Your task to perform on an android device: Search for "bose soundlink" on costco, select the first entry, add it to the cart, then select checkout. Image 0: 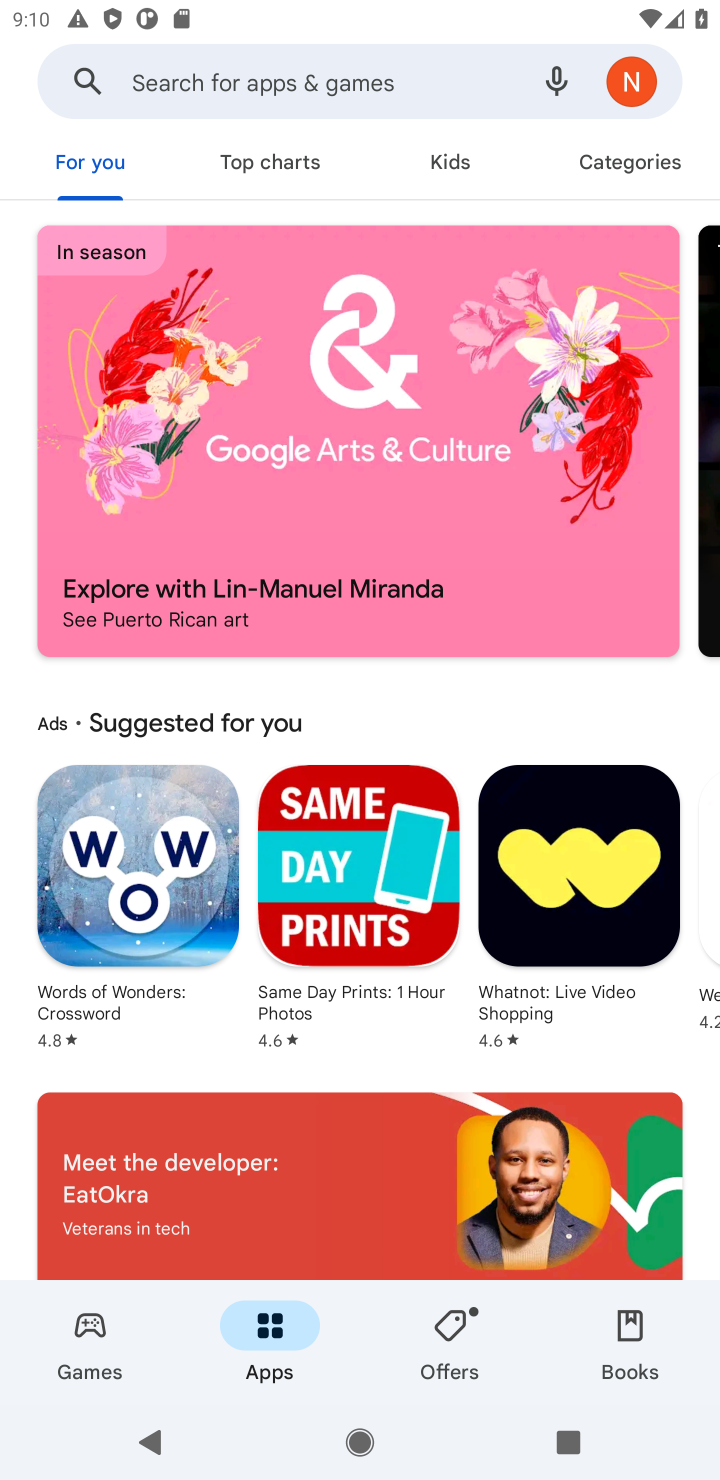
Step 0: press home button
Your task to perform on an android device: Search for "bose soundlink" on costco, select the first entry, add it to the cart, then select checkout. Image 1: 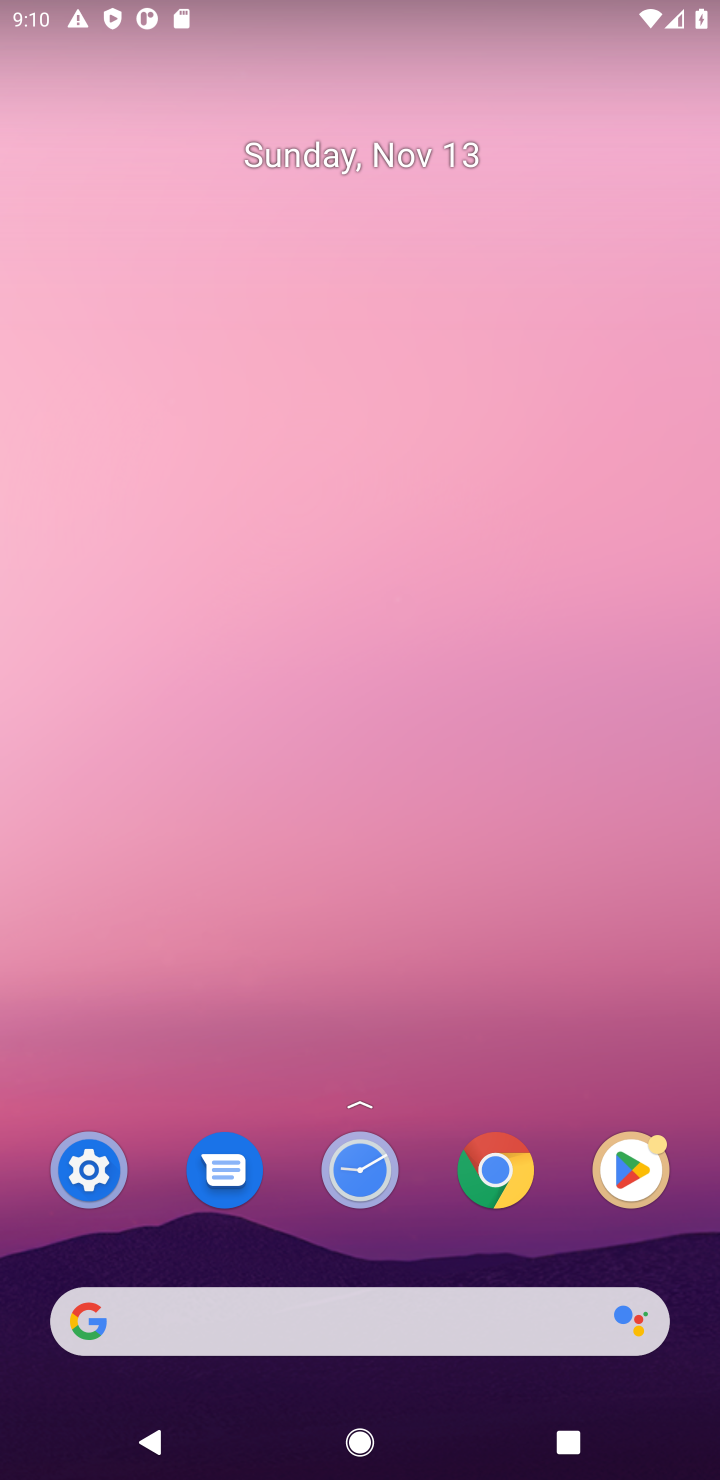
Step 1: click (193, 1313)
Your task to perform on an android device: Search for "bose soundlink" on costco, select the first entry, add it to the cart, then select checkout. Image 2: 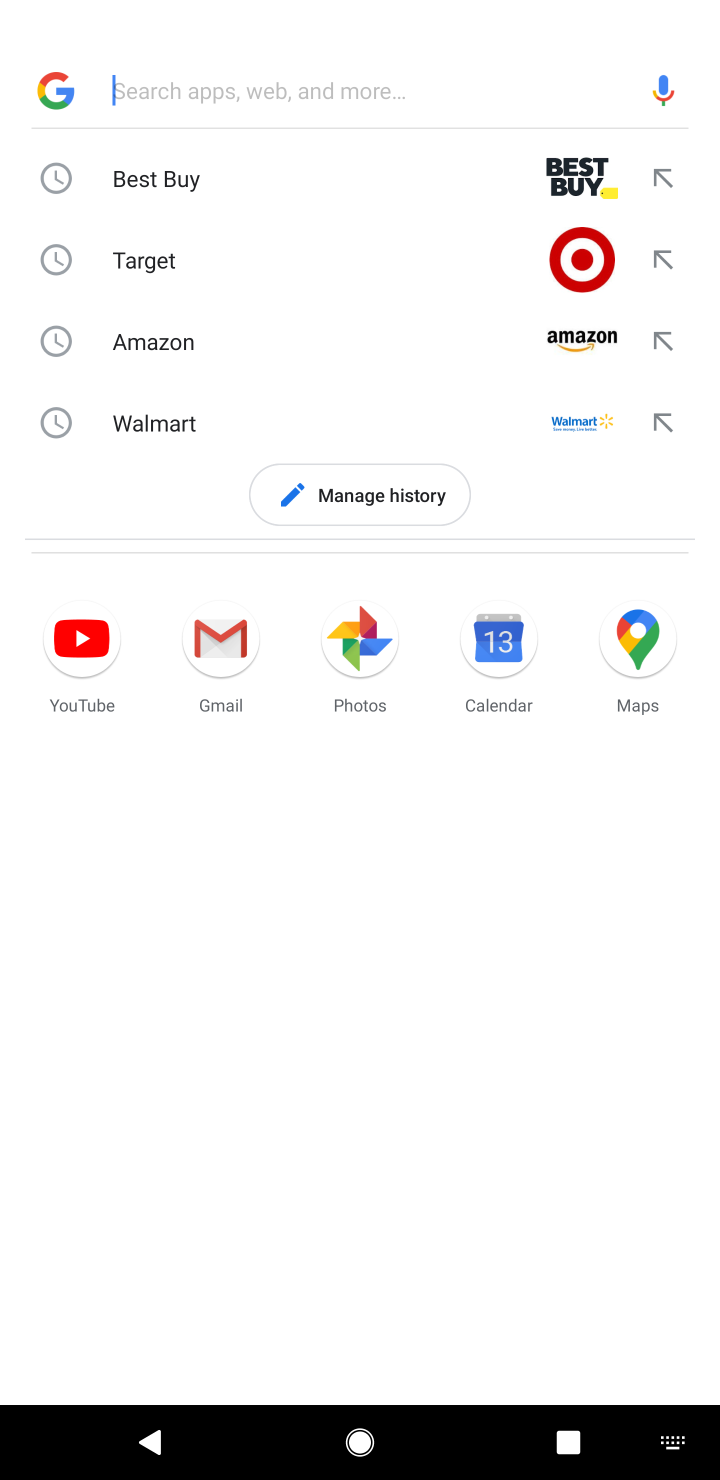
Step 2: type "costco"
Your task to perform on an android device: Search for "bose soundlink" on costco, select the first entry, add it to the cart, then select checkout. Image 3: 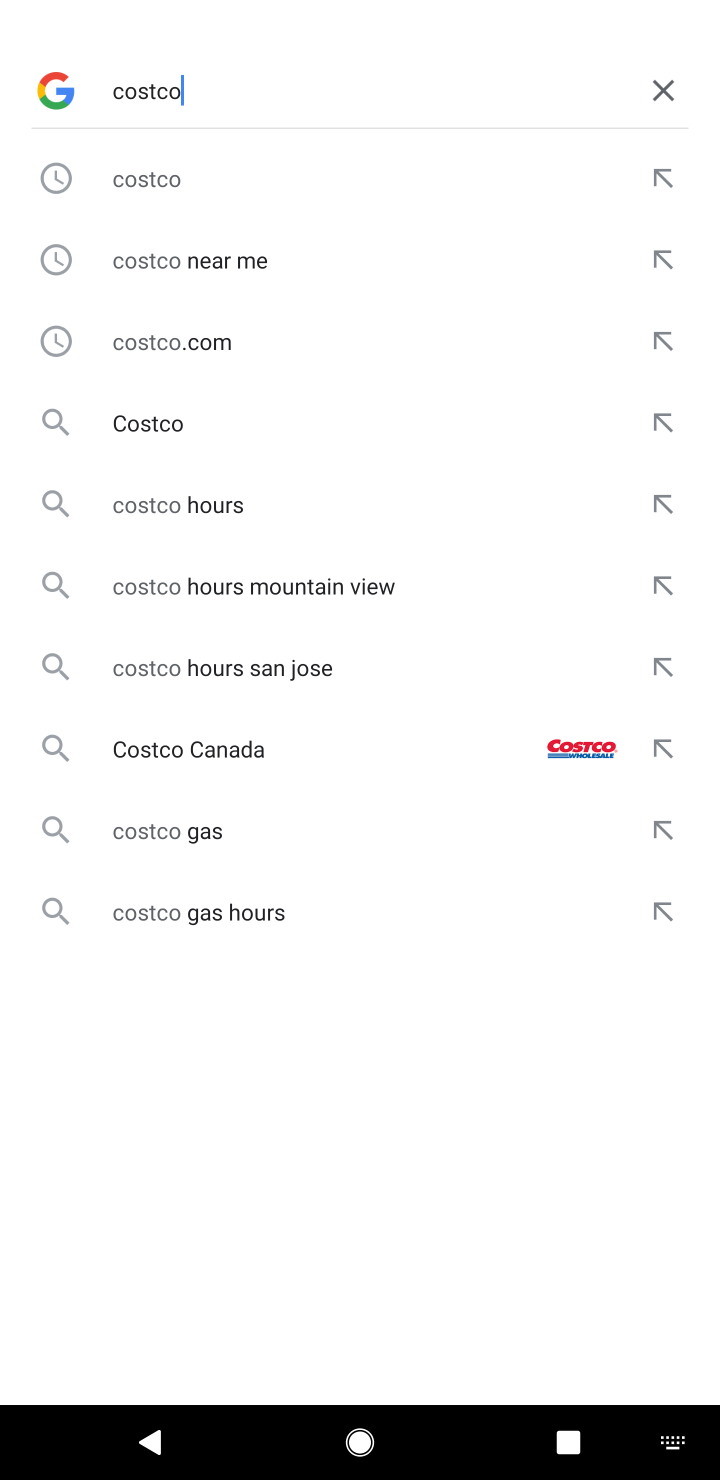
Step 3: click (592, 730)
Your task to perform on an android device: Search for "bose soundlink" on costco, select the first entry, add it to the cart, then select checkout. Image 4: 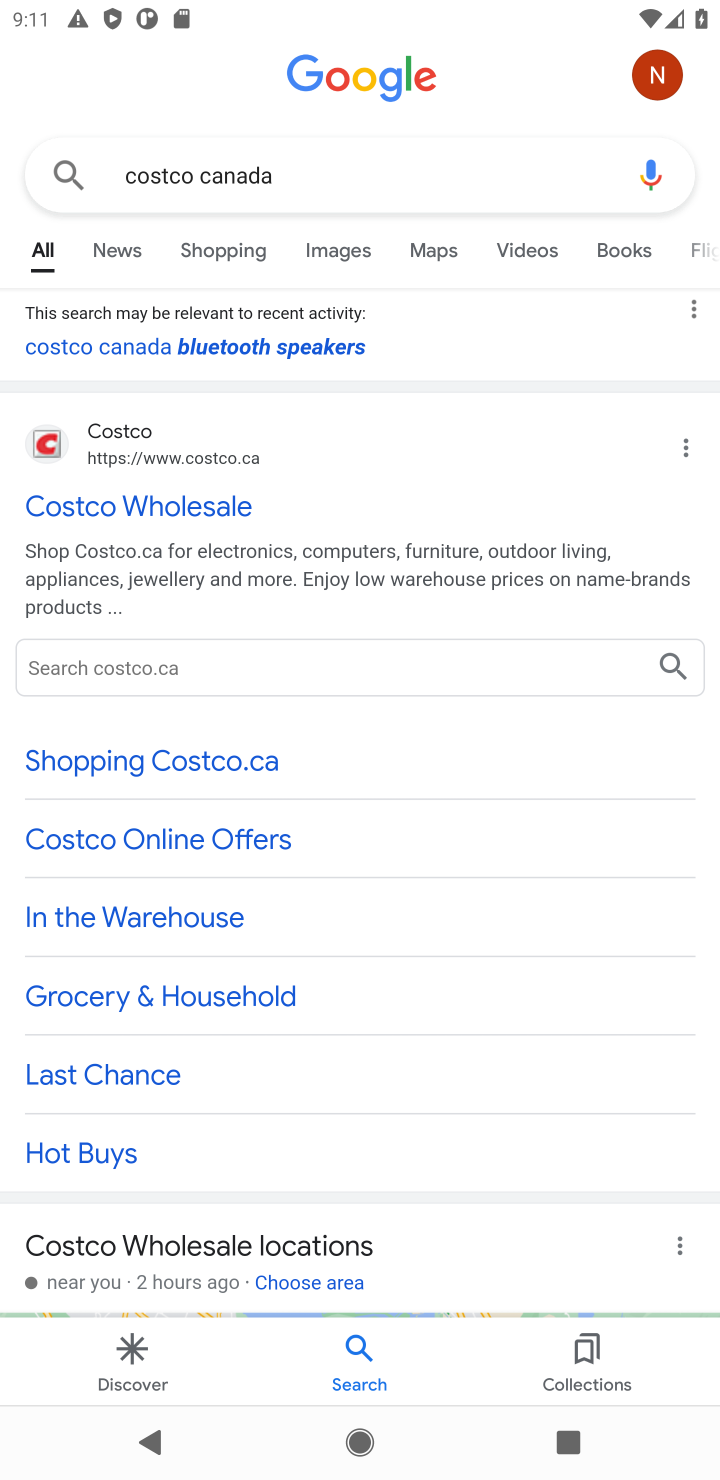
Step 4: click (149, 509)
Your task to perform on an android device: Search for "bose soundlink" on costco, select the first entry, add it to the cart, then select checkout. Image 5: 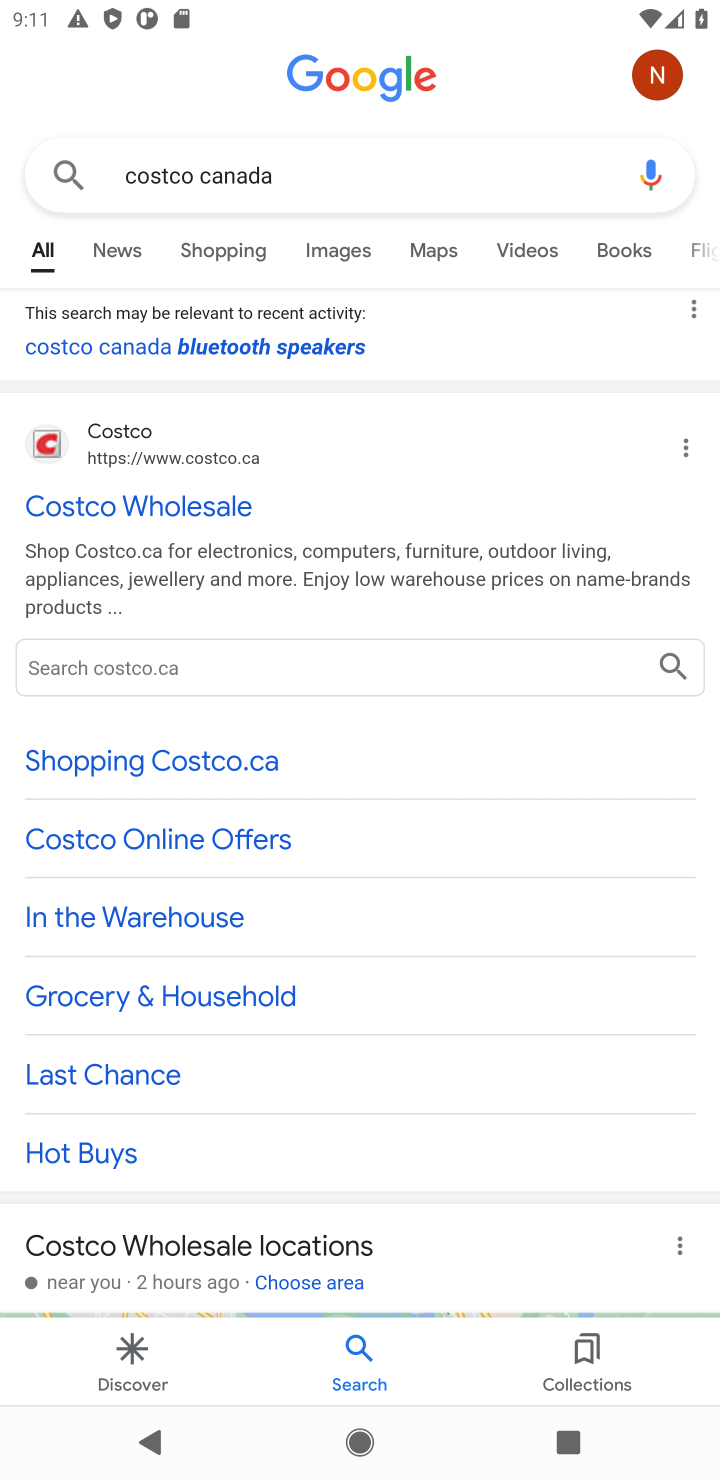
Step 5: task complete